Your task to perform on an android device: open sync settings in chrome Image 0: 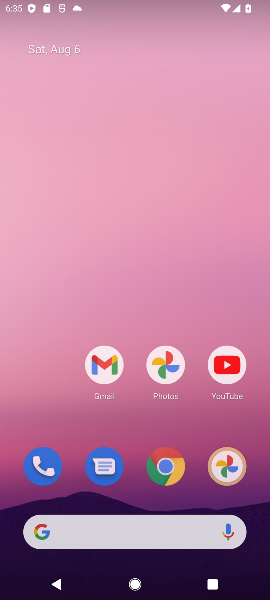
Step 0: press home button
Your task to perform on an android device: open sync settings in chrome Image 1: 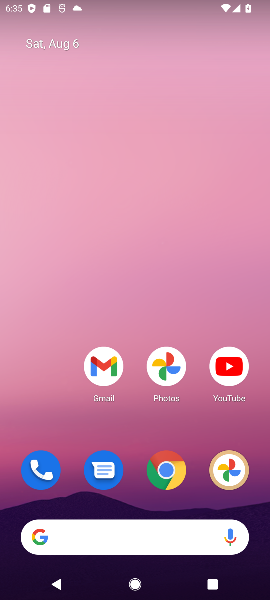
Step 1: drag from (162, 493) to (170, 112)
Your task to perform on an android device: open sync settings in chrome Image 2: 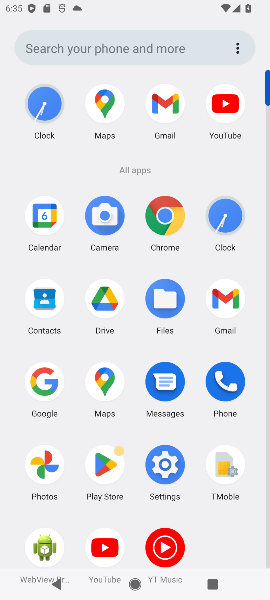
Step 2: click (165, 231)
Your task to perform on an android device: open sync settings in chrome Image 3: 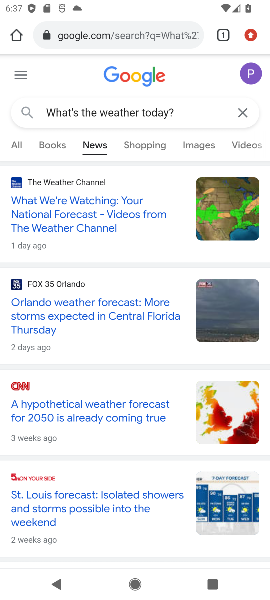
Step 3: drag from (249, 29) to (123, 497)
Your task to perform on an android device: open sync settings in chrome Image 4: 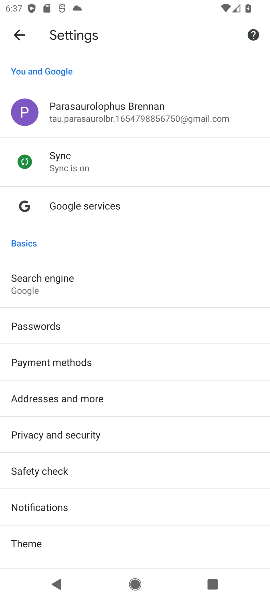
Step 4: click (103, 166)
Your task to perform on an android device: open sync settings in chrome Image 5: 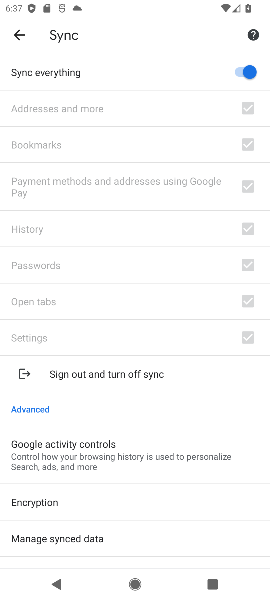
Step 5: task complete